Your task to perform on an android device: turn off wifi Image 0: 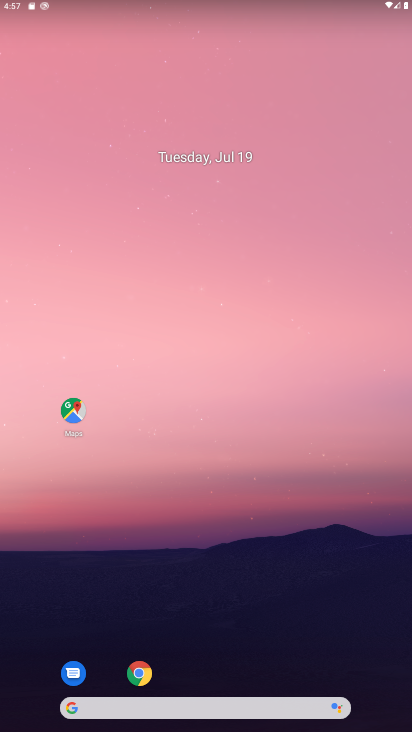
Step 0: drag from (228, 676) to (286, 13)
Your task to perform on an android device: turn off wifi Image 1: 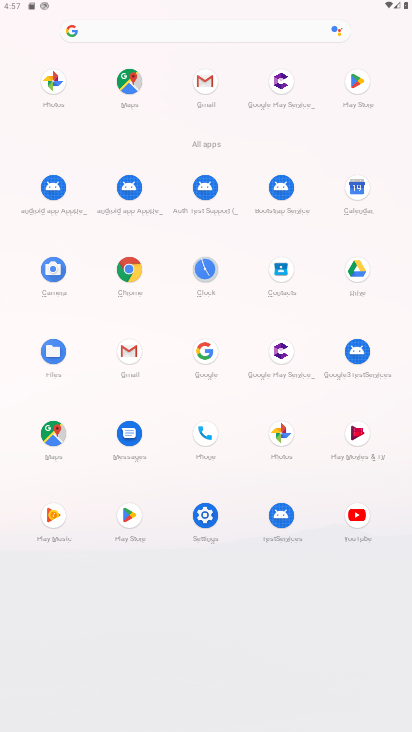
Step 1: drag from (174, 2) to (173, 628)
Your task to perform on an android device: turn off wifi Image 2: 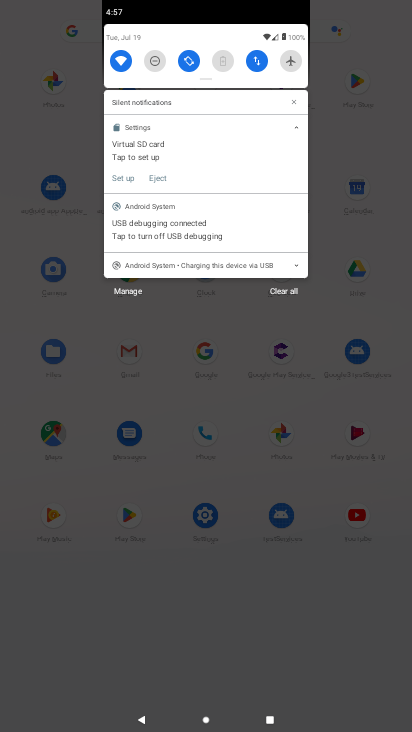
Step 2: click (121, 61)
Your task to perform on an android device: turn off wifi Image 3: 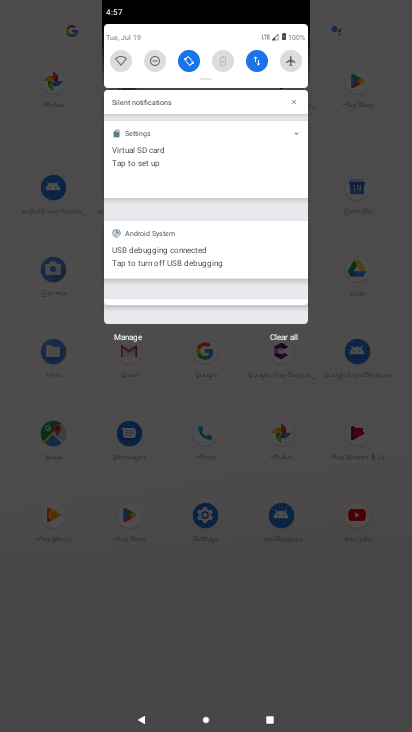
Step 3: task complete